Your task to perform on an android device: toggle wifi Image 0: 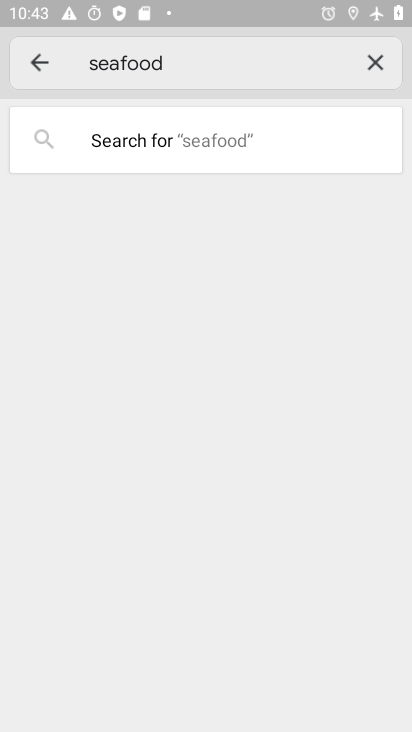
Step 0: press home button
Your task to perform on an android device: toggle wifi Image 1: 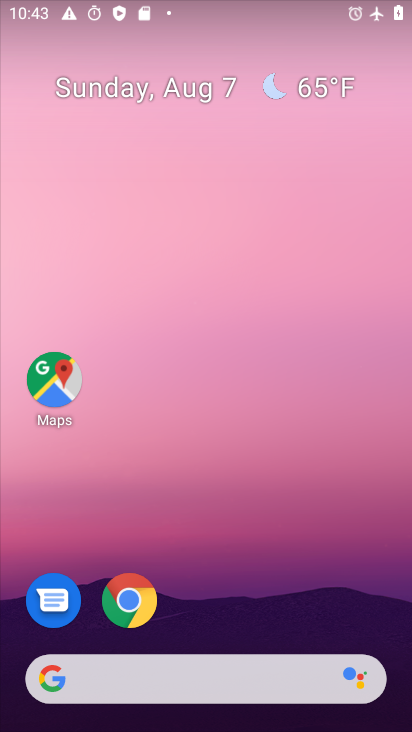
Step 1: drag from (224, 655) to (279, 60)
Your task to perform on an android device: toggle wifi Image 2: 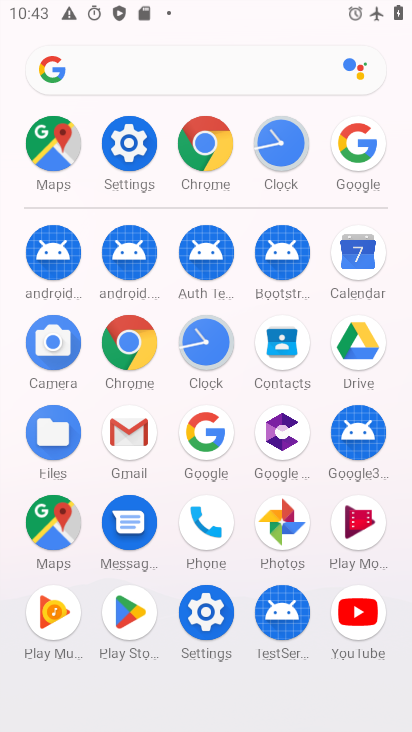
Step 2: click (131, 164)
Your task to perform on an android device: toggle wifi Image 3: 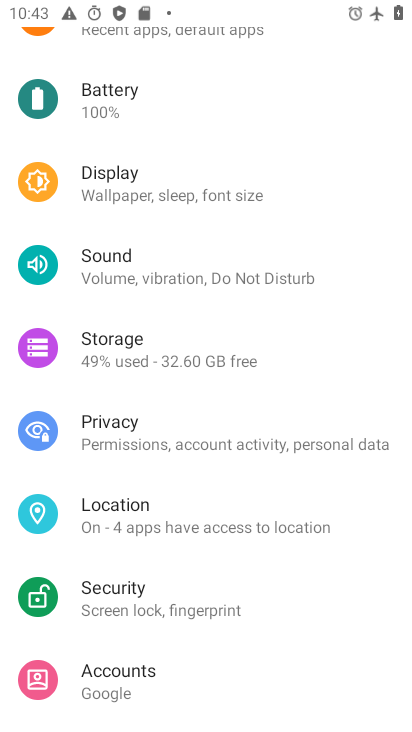
Step 3: drag from (225, 227) to (214, 582)
Your task to perform on an android device: toggle wifi Image 4: 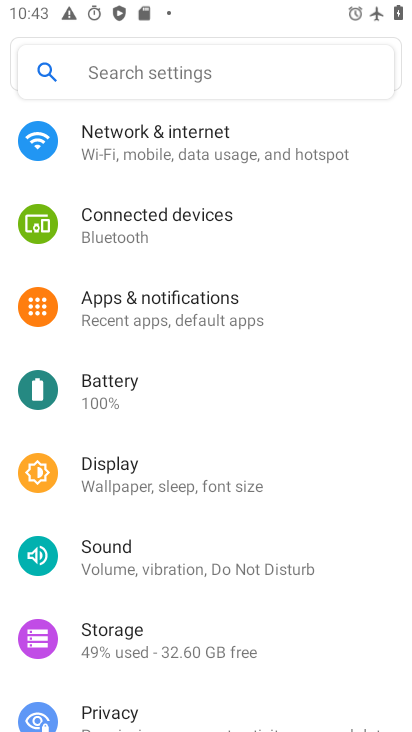
Step 4: click (235, 156)
Your task to perform on an android device: toggle wifi Image 5: 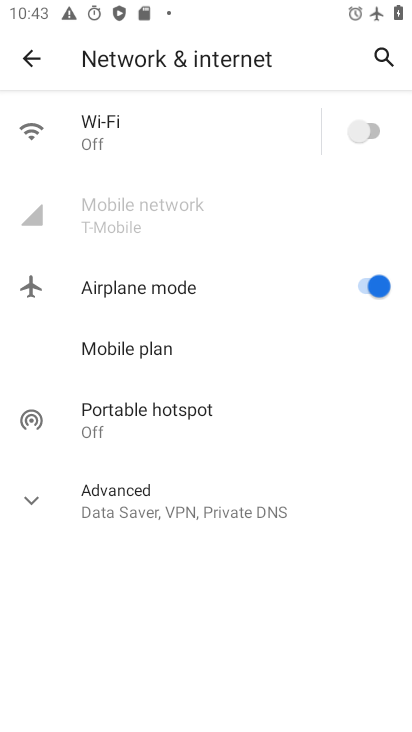
Step 5: click (371, 135)
Your task to perform on an android device: toggle wifi Image 6: 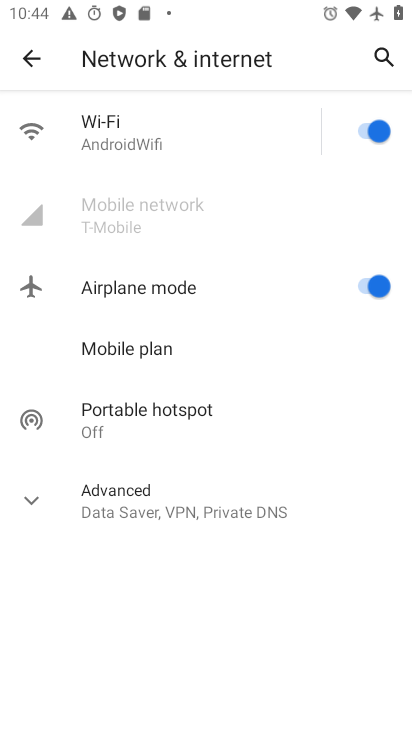
Step 6: task complete